Your task to perform on an android device: see tabs open on other devices in the chrome app Image 0: 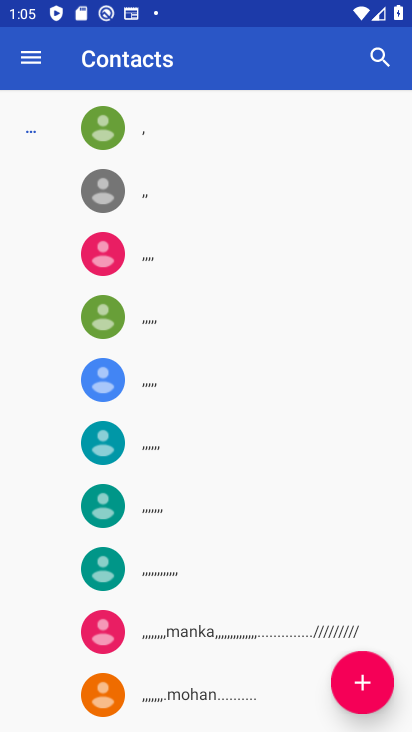
Step 0: press home button
Your task to perform on an android device: see tabs open on other devices in the chrome app Image 1: 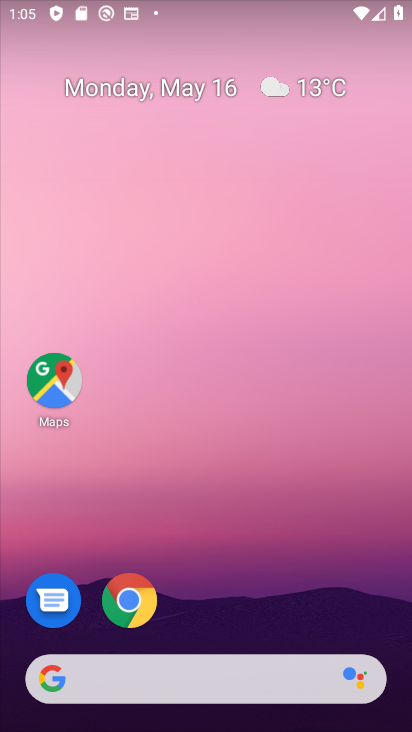
Step 1: click (127, 602)
Your task to perform on an android device: see tabs open on other devices in the chrome app Image 2: 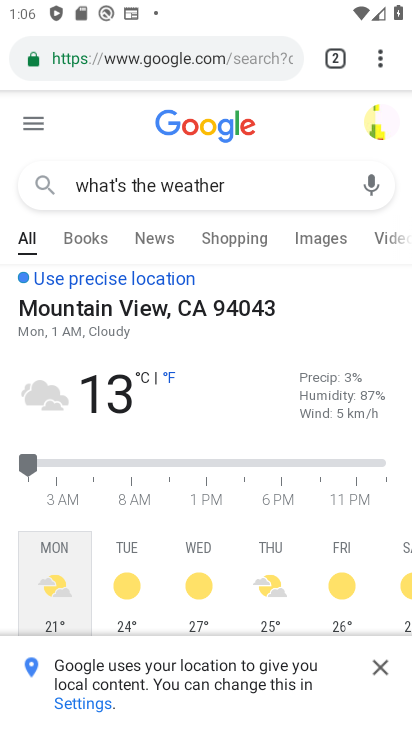
Step 2: click (381, 60)
Your task to perform on an android device: see tabs open on other devices in the chrome app Image 3: 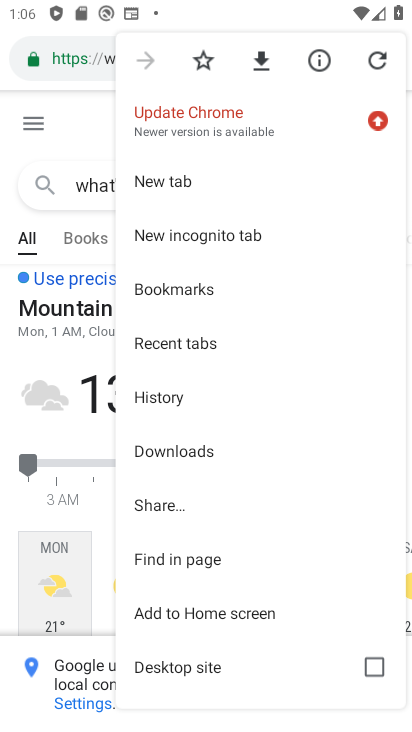
Step 3: click (176, 346)
Your task to perform on an android device: see tabs open on other devices in the chrome app Image 4: 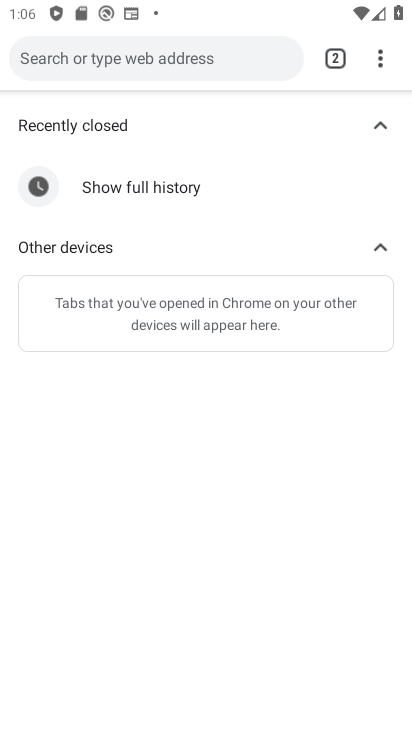
Step 4: task complete